Your task to perform on an android device: delete location history Image 0: 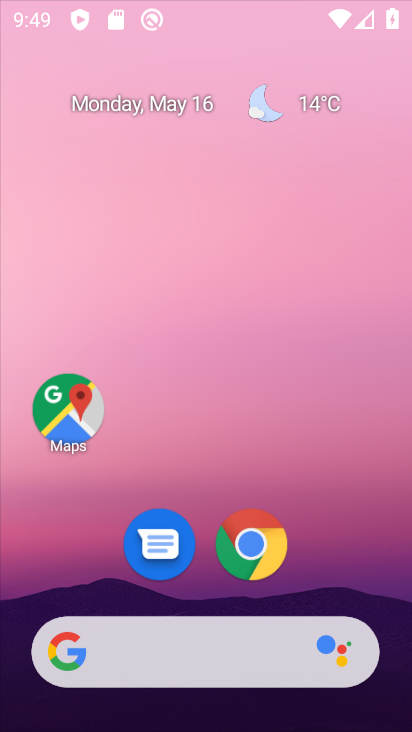
Step 0: drag from (332, 429) to (369, 137)
Your task to perform on an android device: delete location history Image 1: 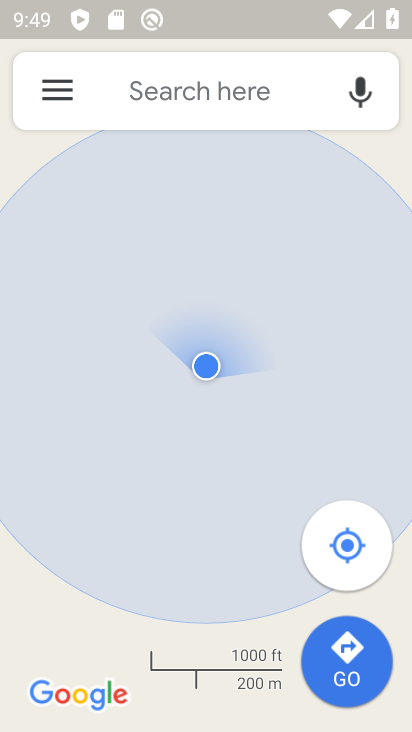
Step 1: press home button
Your task to perform on an android device: delete location history Image 2: 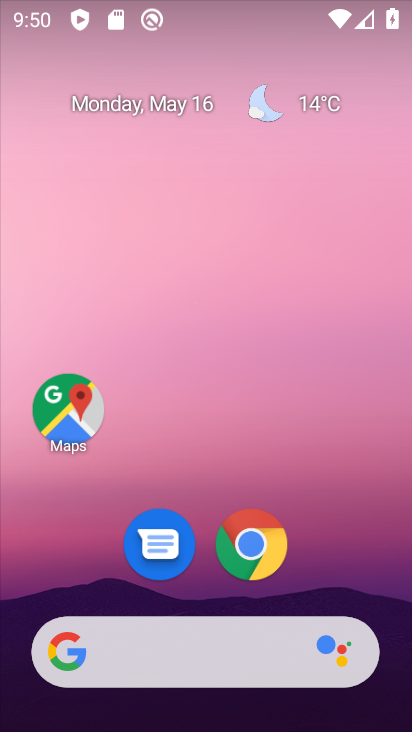
Step 2: drag from (337, 570) to (336, 174)
Your task to perform on an android device: delete location history Image 3: 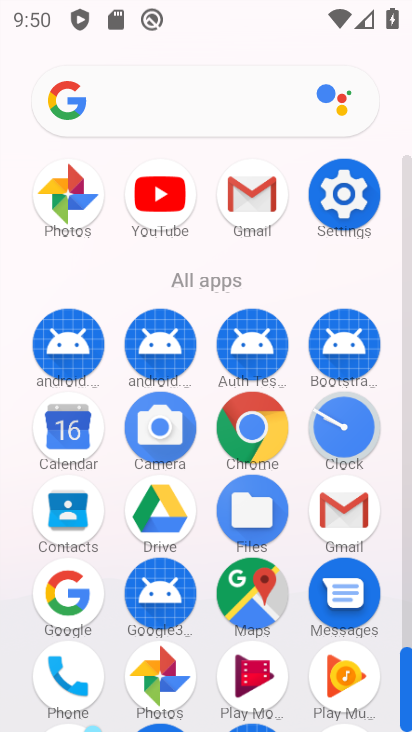
Step 3: click (349, 218)
Your task to perform on an android device: delete location history Image 4: 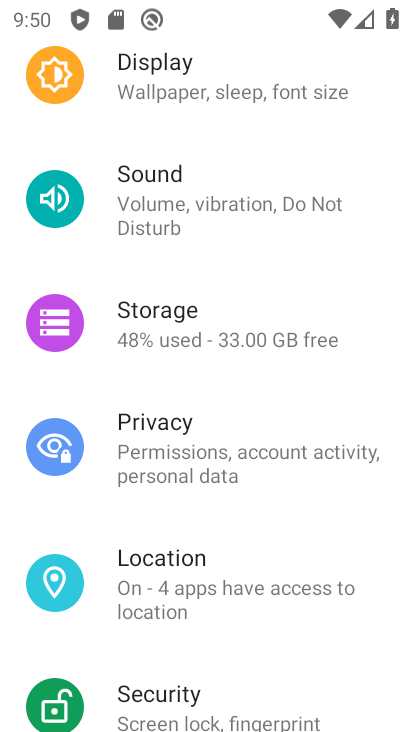
Step 4: click (203, 580)
Your task to perform on an android device: delete location history Image 5: 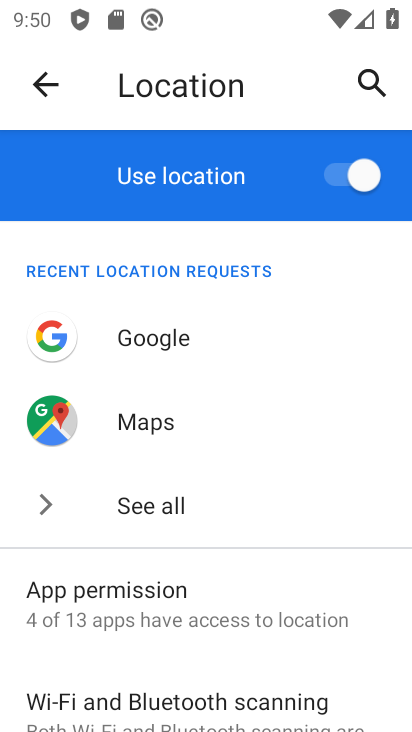
Step 5: drag from (160, 642) to (214, 327)
Your task to perform on an android device: delete location history Image 6: 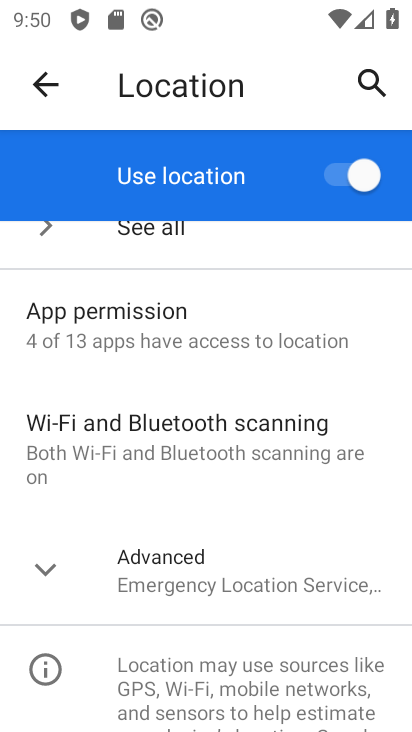
Step 6: click (36, 564)
Your task to perform on an android device: delete location history Image 7: 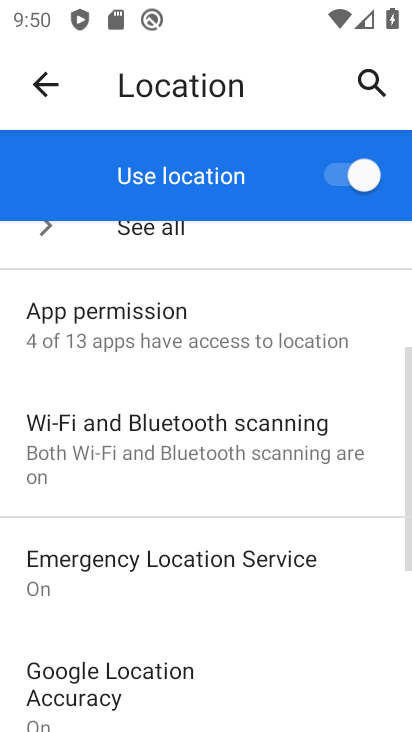
Step 7: drag from (197, 714) to (218, 477)
Your task to perform on an android device: delete location history Image 8: 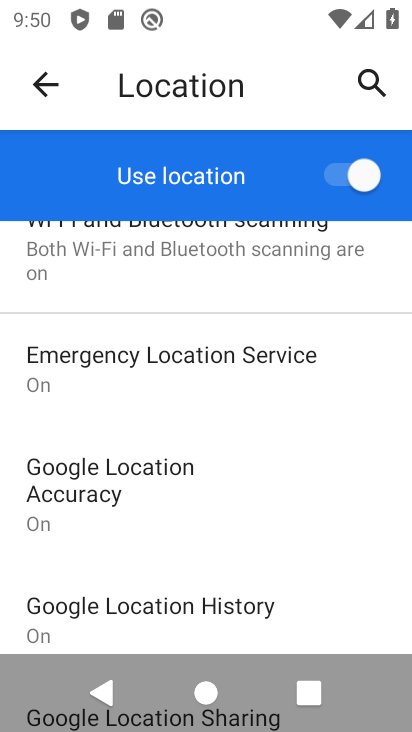
Step 8: click (210, 606)
Your task to perform on an android device: delete location history Image 9: 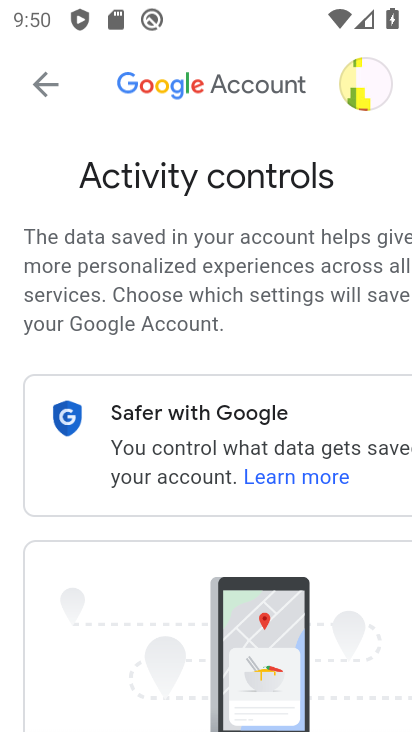
Step 9: task complete